Your task to perform on an android device: check storage Image 0: 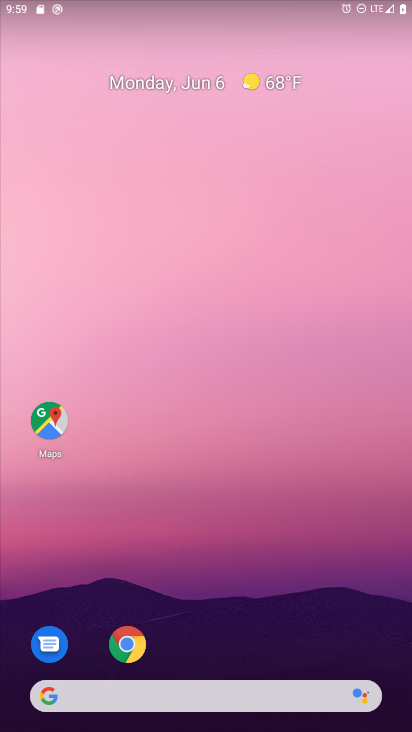
Step 0: drag from (280, 698) to (295, 91)
Your task to perform on an android device: check storage Image 1: 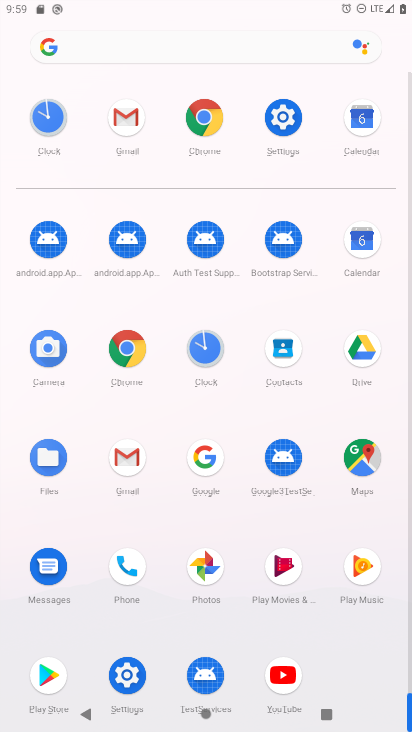
Step 1: click (275, 126)
Your task to perform on an android device: check storage Image 2: 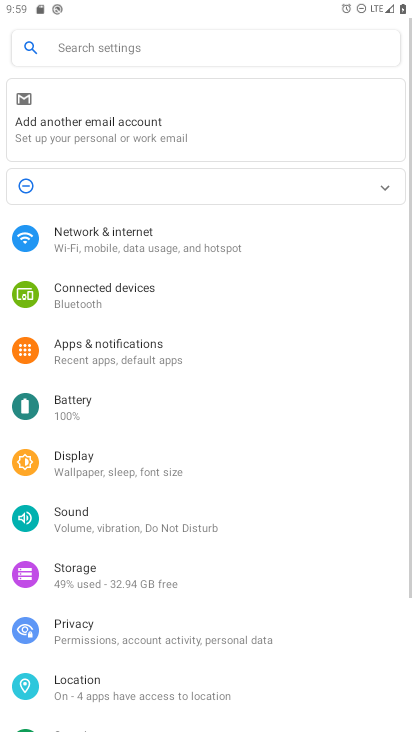
Step 2: click (96, 48)
Your task to perform on an android device: check storage Image 3: 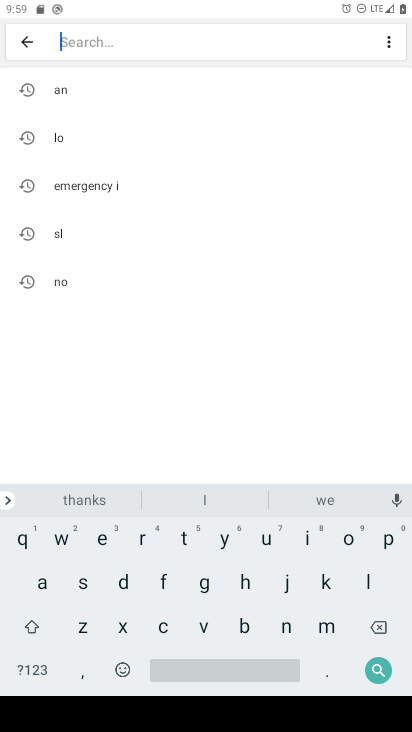
Step 3: click (72, 574)
Your task to perform on an android device: check storage Image 4: 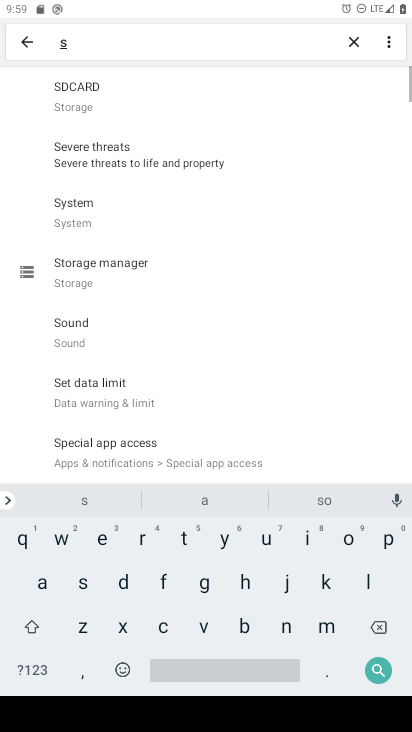
Step 4: click (182, 539)
Your task to perform on an android device: check storage Image 5: 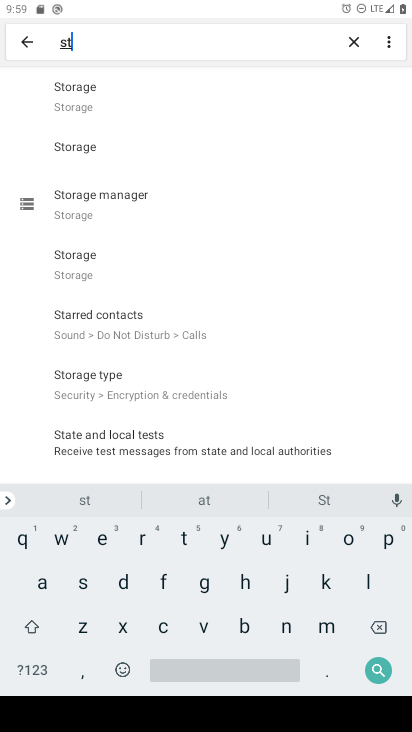
Step 5: click (125, 97)
Your task to perform on an android device: check storage Image 6: 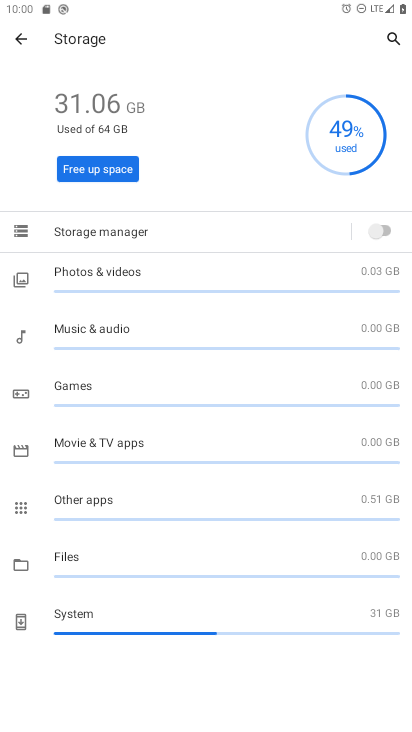
Step 6: task complete